Your task to perform on an android device: Search for razer huntsman on amazon, select the first entry, add it to the cart, then select checkout. Image 0: 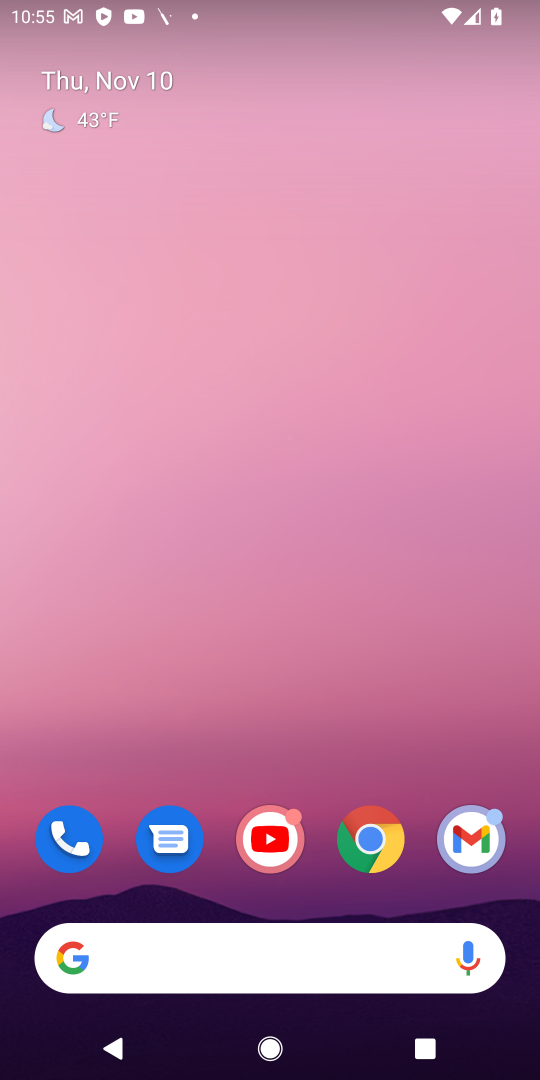
Step 0: click (381, 841)
Your task to perform on an android device: Search for razer huntsman on amazon, select the first entry, add it to the cart, then select checkout. Image 1: 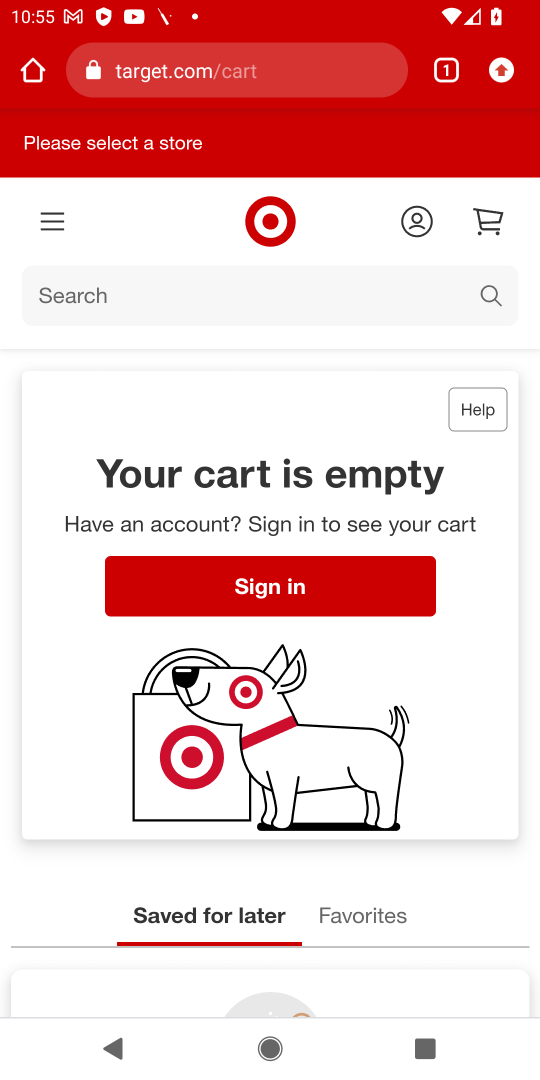
Step 1: click (320, 50)
Your task to perform on an android device: Search for razer huntsman on amazon, select the first entry, add it to the cart, then select checkout. Image 2: 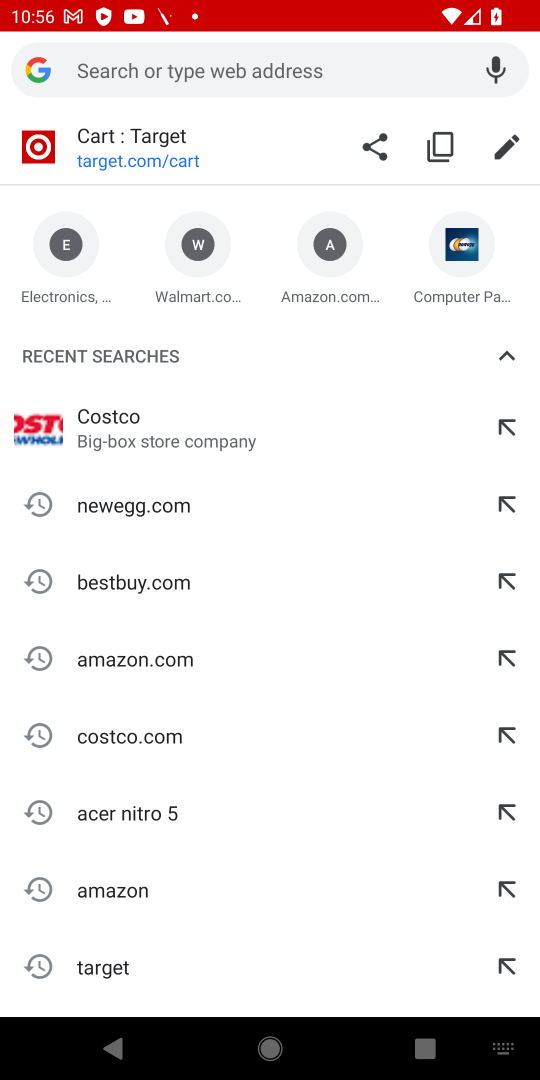
Step 2: click (162, 663)
Your task to perform on an android device: Search for razer huntsman on amazon, select the first entry, add it to the cart, then select checkout. Image 3: 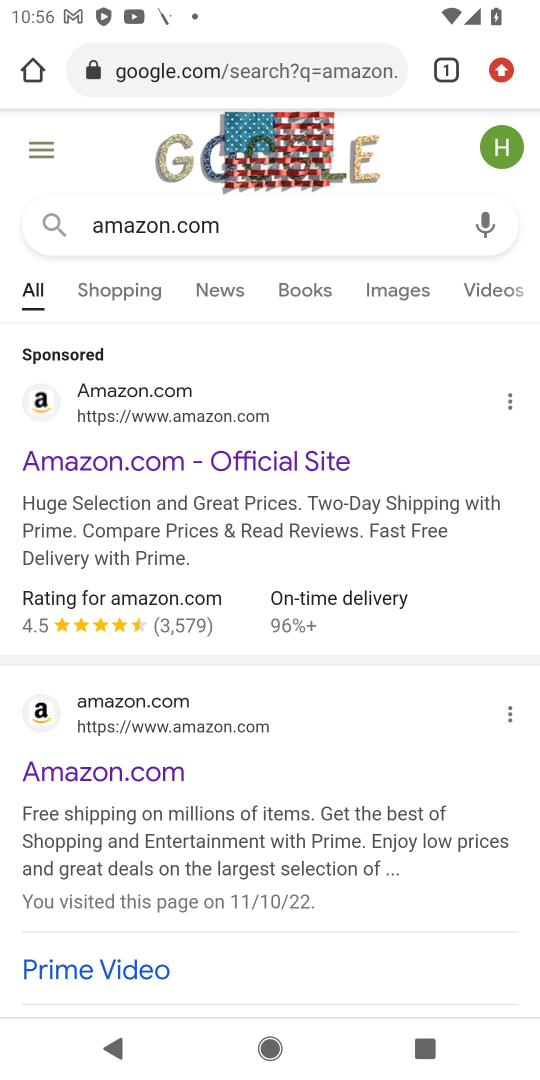
Step 3: click (217, 412)
Your task to perform on an android device: Search for razer huntsman on amazon, select the first entry, add it to the cart, then select checkout. Image 4: 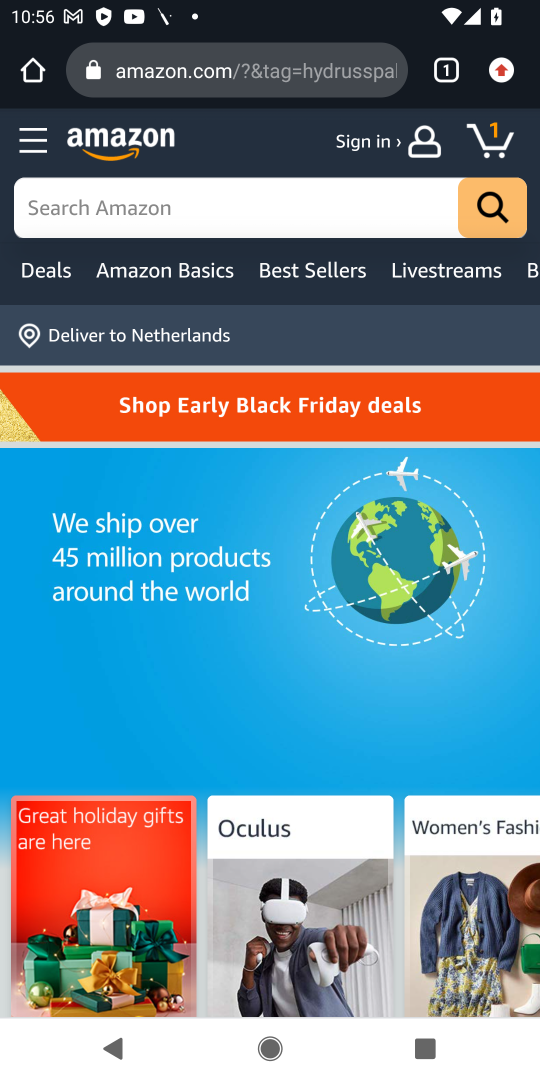
Step 4: click (273, 198)
Your task to perform on an android device: Search for razer huntsman on amazon, select the first entry, add it to the cart, then select checkout. Image 5: 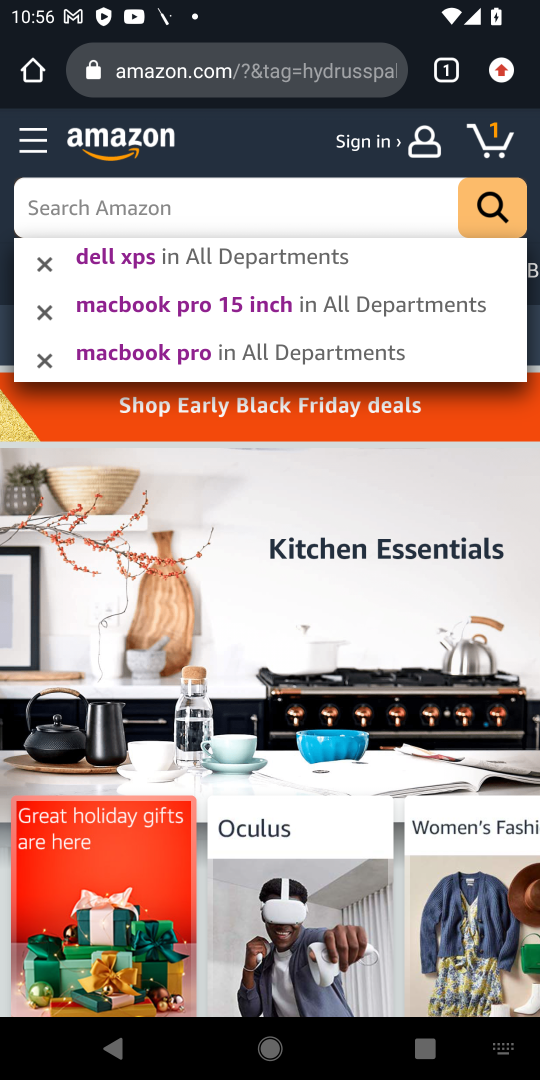
Step 5: type "target.com"
Your task to perform on an android device: Search for razer huntsman on amazon, select the first entry, add it to the cart, then select checkout. Image 6: 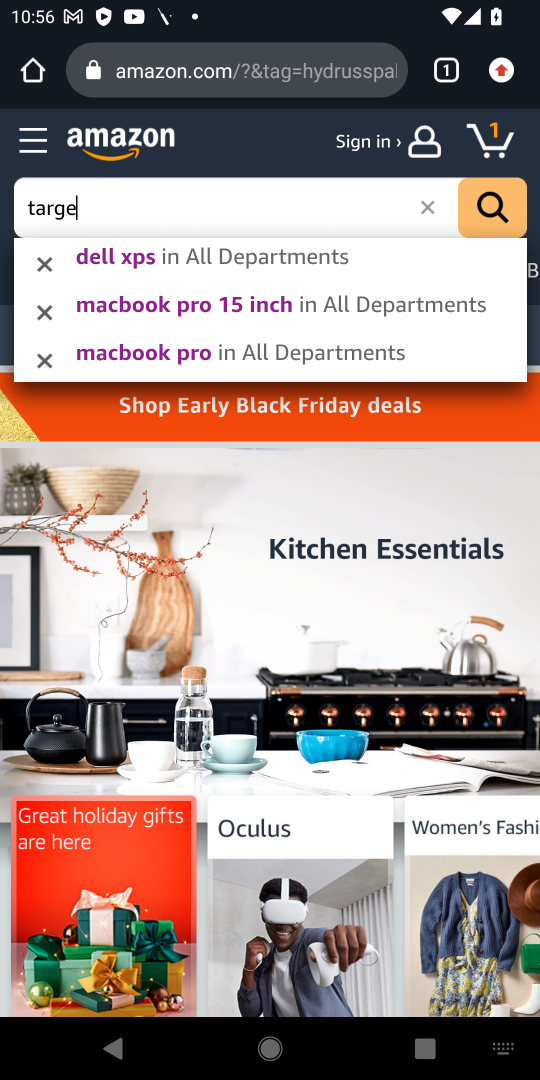
Step 6: press enter
Your task to perform on an android device: Search for razer huntsman on amazon, select the first entry, add it to the cart, then select checkout. Image 7: 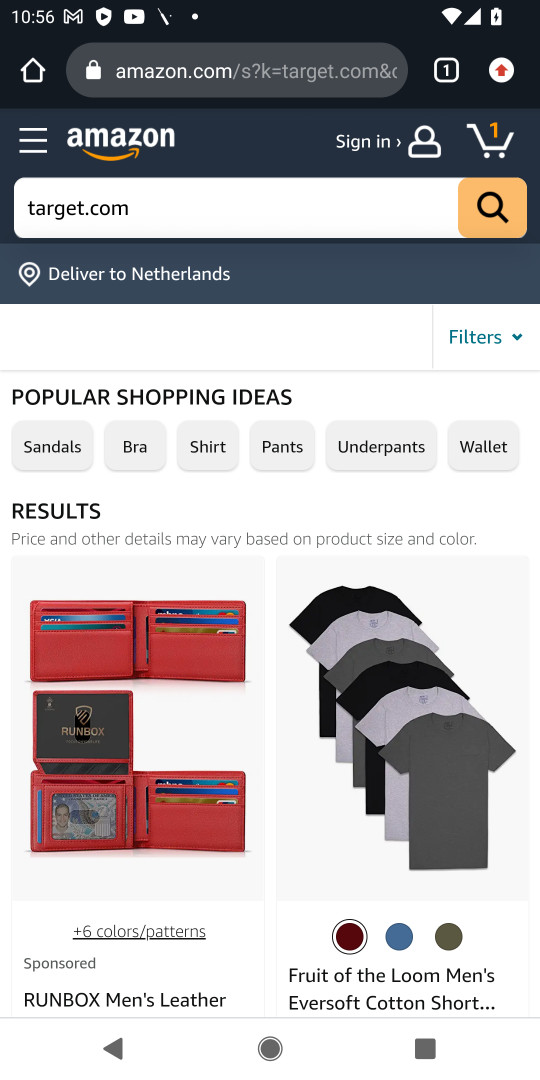
Step 7: drag from (200, 203) to (14, 193)
Your task to perform on an android device: Search for razer huntsman on amazon, select the first entry, add it to the cart, then select checkout. Image 8: 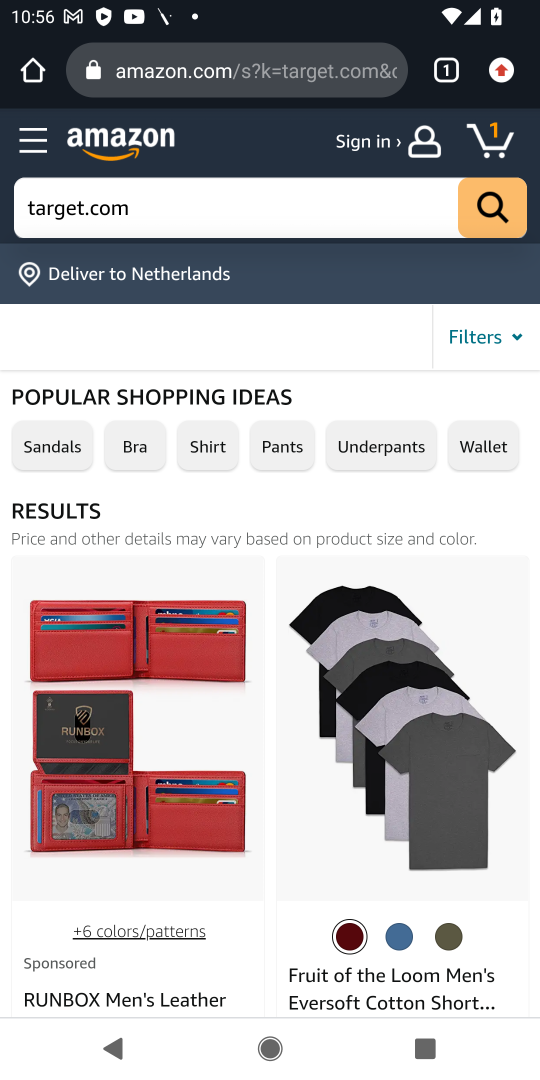
Step 8: click (71, 207)
Your task to perform on an android device: Search for razer huntsman on amazon, select the first entry, add it to the cart, then select checkout. Image 9: 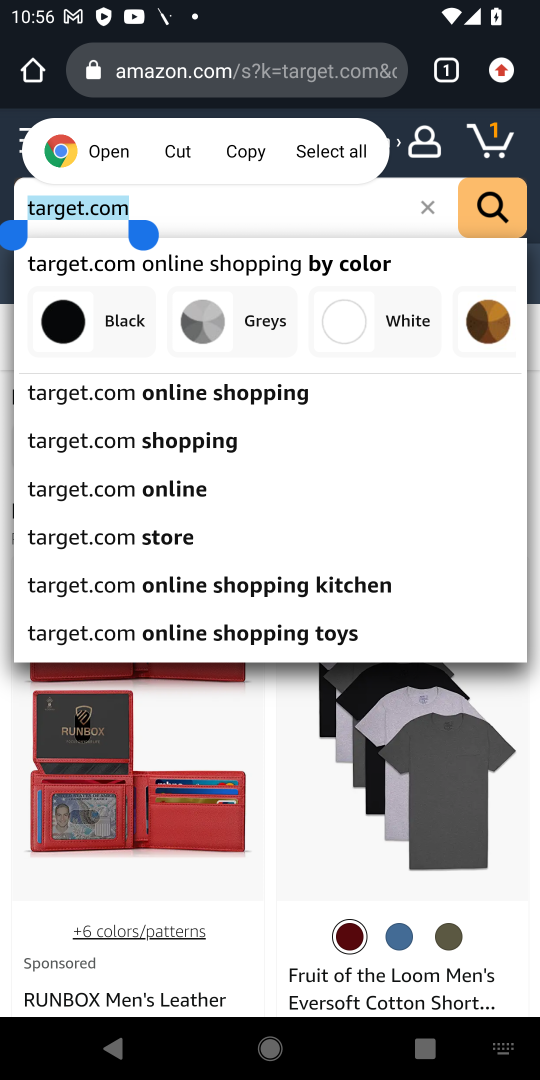
Step 9: click (430, 205)
Your task to perform on an android device: Search for razer huntsman on amazon, select the first entry, add it to the cart, then select checkout. Image 10: 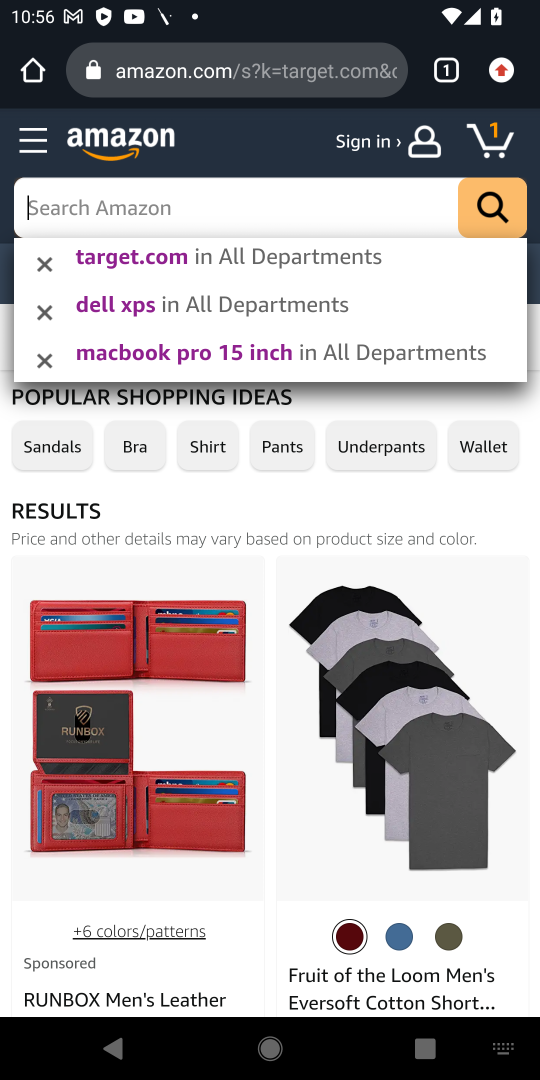
Step 10: type "razer huntsman"
Your task to perform on an android device: Search for razer huntsman on amazon, select the first entry, add it to the cart, then select checkout. Image 11: 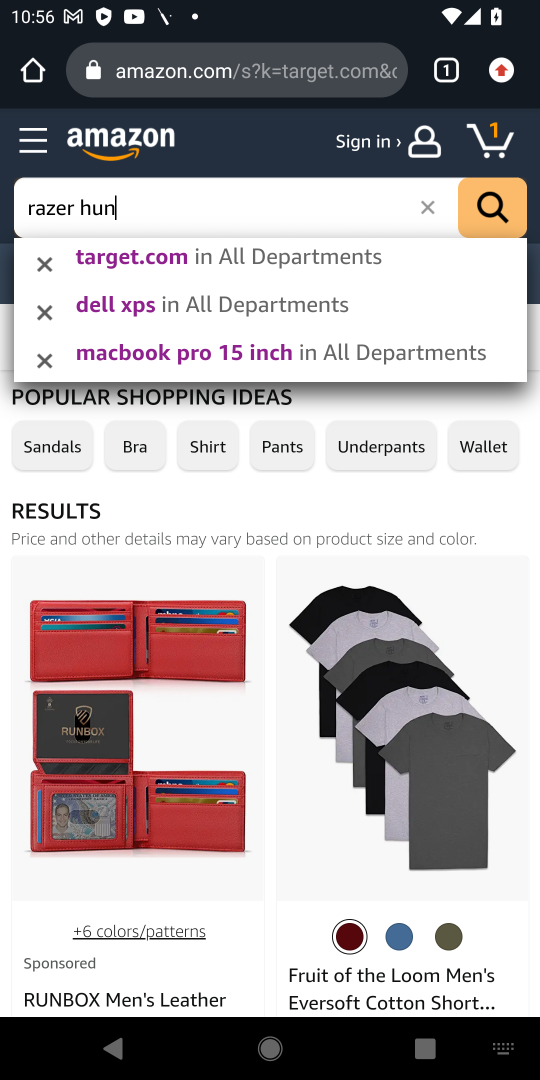
Step 11: press enter
Your task to perform on an android device: Search for razer huntsman on amazon, select the first entry, add it to the cart, then select checkout. Image 12: 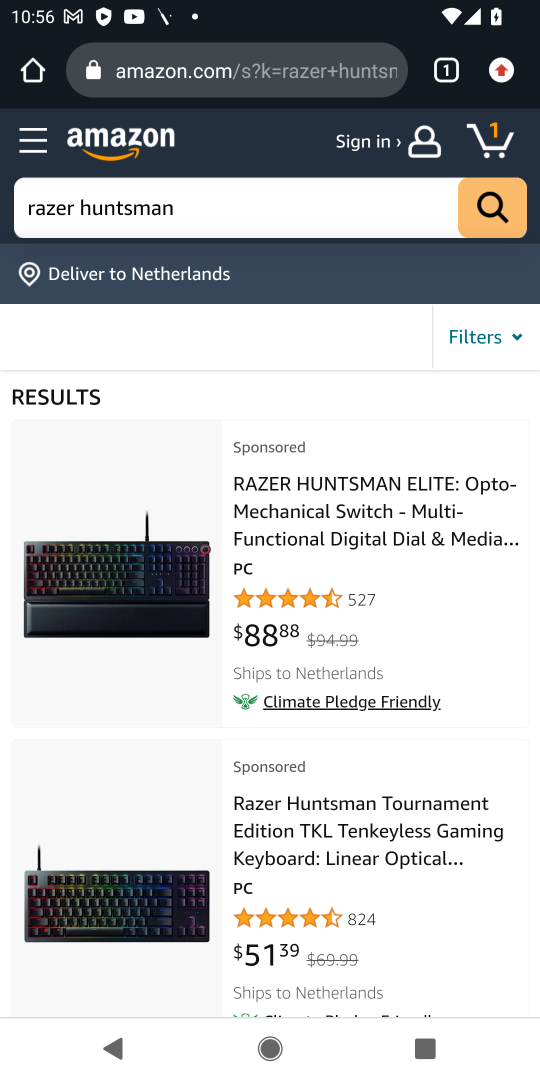
Step 12: click (150, 569)
Your task to perform on an android device: Search for razer huntsman on amazon, select the first entry, add it to the cart, then select checkout. Image 13: 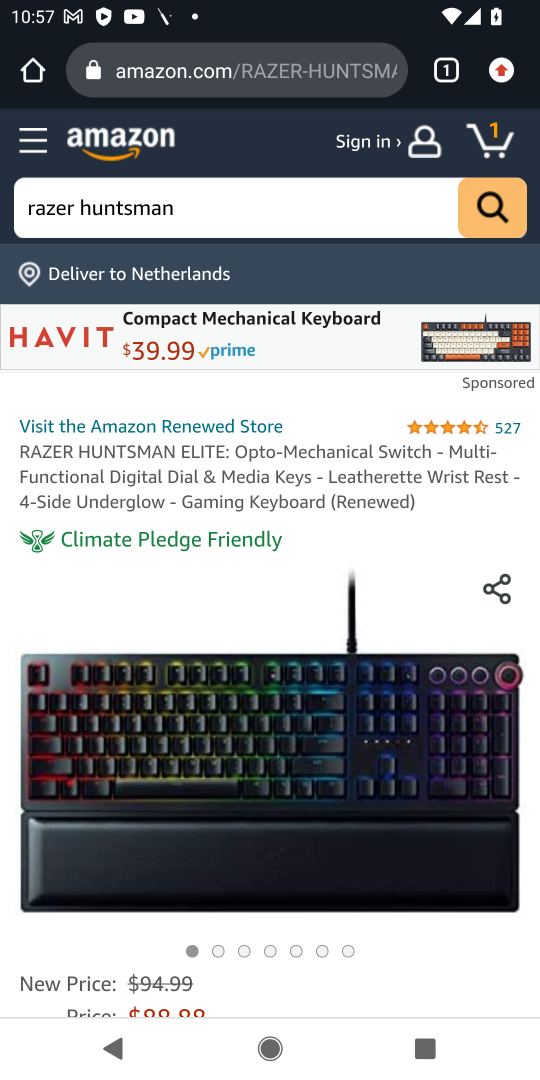
Step 13: drag from (321, 639) to (345, 195)
Your task to perform on an android device: Search for razer huntsman on amazon, select the first entry, add it to the cart, then select checkout. Image 14: 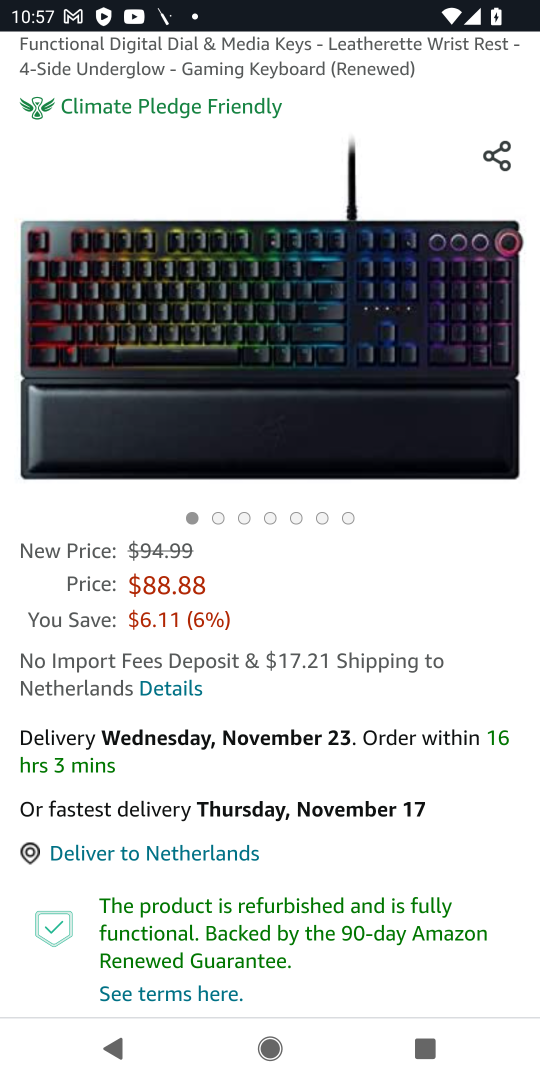
Step 14: drag from (396, 784) to (378, 334)
Your task to perform on an android device: Search for razer huntsman on amazon, select the first entry, add it to the cart, then select checkout. Image 15: 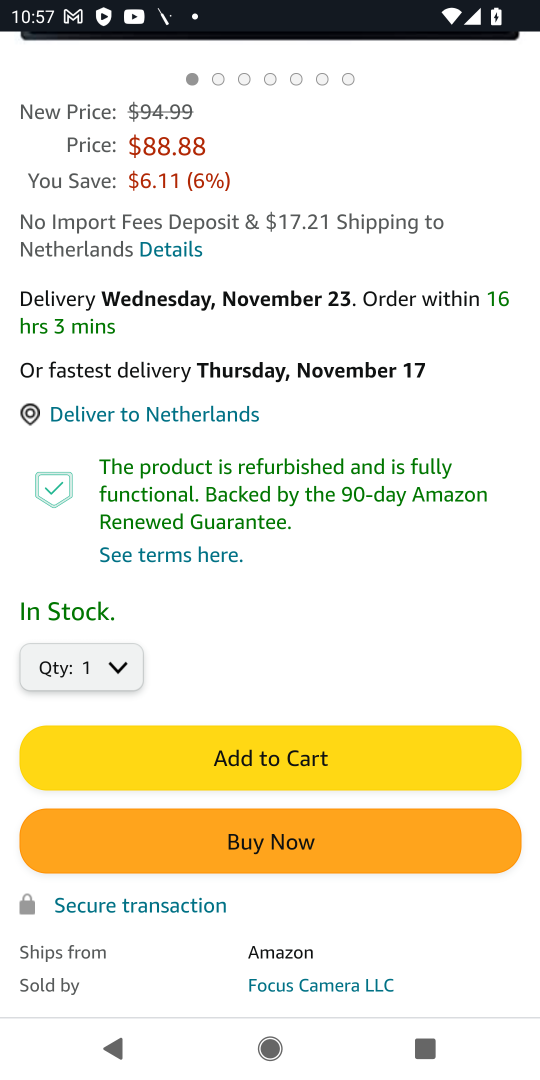
Step 15: click (289, 748)
Your task to perform on an android device: Search for razer huntsman on amazon, select the first entry, add it to the cart, then select checkout. Image 16: 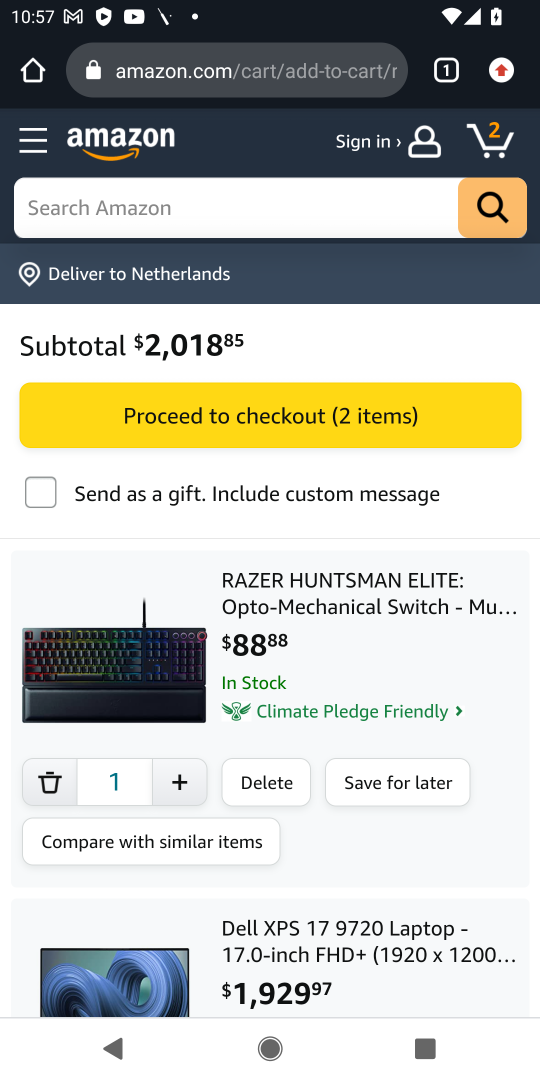
Step 16: click (251, 411)
Your task to perform on an android device: Search for razer huntsman on amazon, select the first entry, add it to the cart, then select checkout. Image 17: 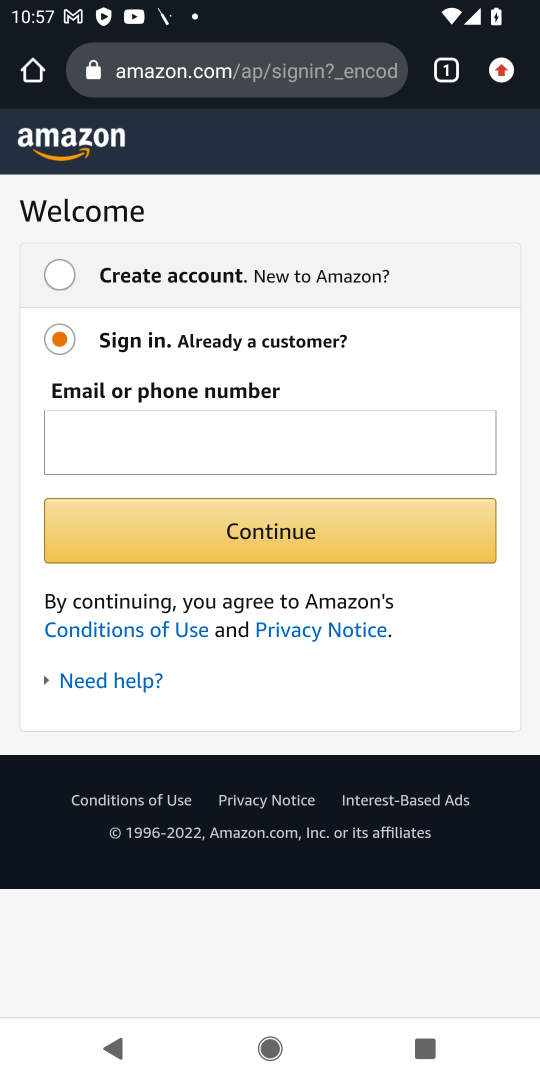
Step 17: task complete